Your task to perform on an android device: turn off translation in the chrome app Image 0: 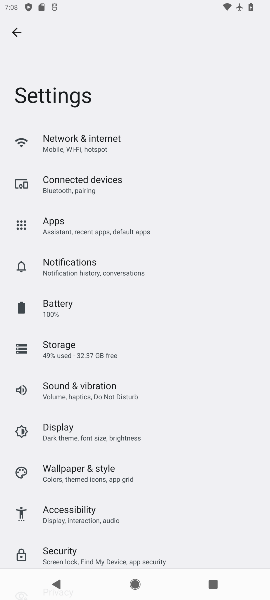
Step 0: press home button
Your task to perform on an android device: turn off translation in the chrome app Image 1: 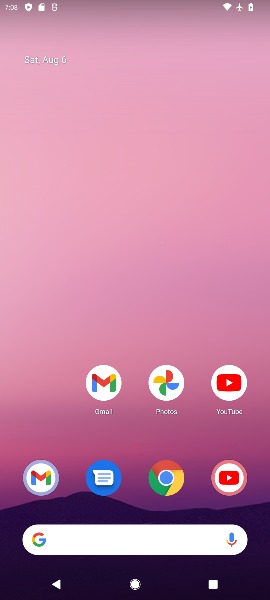
Step 1: click (163, 466)
Your task to perform on an android device: turn off translation in the chrome app Image 2: 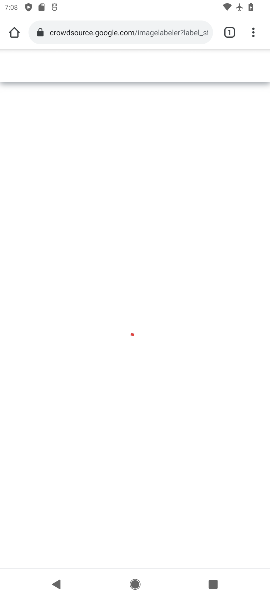
Step 2: drag from (253, 31) to (159, 431)
Your task to perform on an android device: turn off translation in the chrome app Image 3: 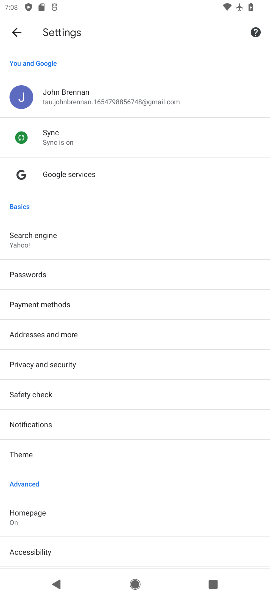
Step 3: drag from (73, 477) to (139, 239)
Your task to perform on an android device: turn off translation in the chrome app Image 4: 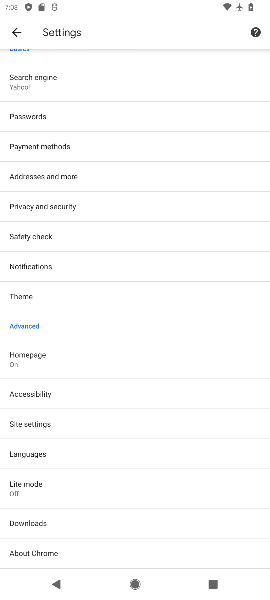
Step 4: click (54, 450)
Your task to perform on an android device: turn off translation in the chrome app Image 5: 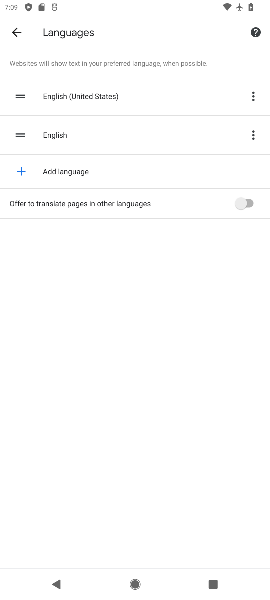
Step 5: task complete